Your task to perform on an android device: Go to wifi settings Image 0: 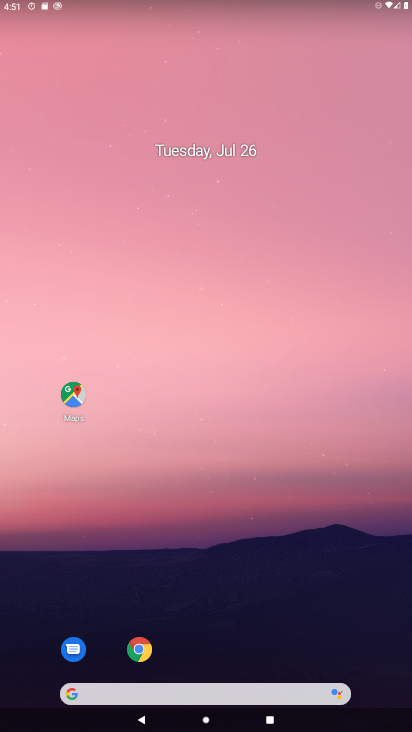
Step 0: drag from (369, 629) to (182, 6)
Your task to perform on an android device: Go to wifi settings Image 1: 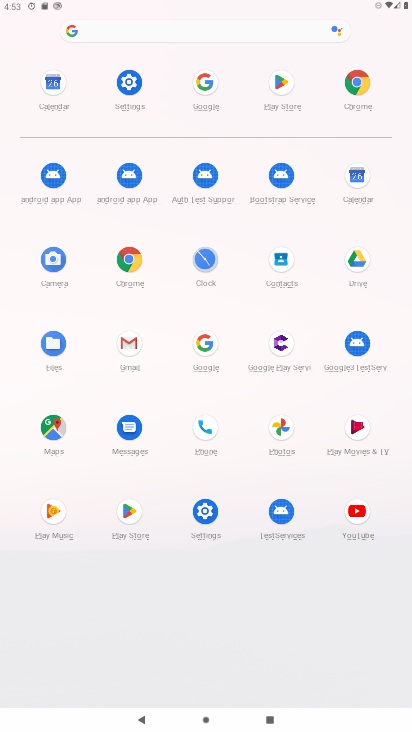
Step 1: click (204, 507)
Your task to perform on an android device: Go to wifi settings Image 2: 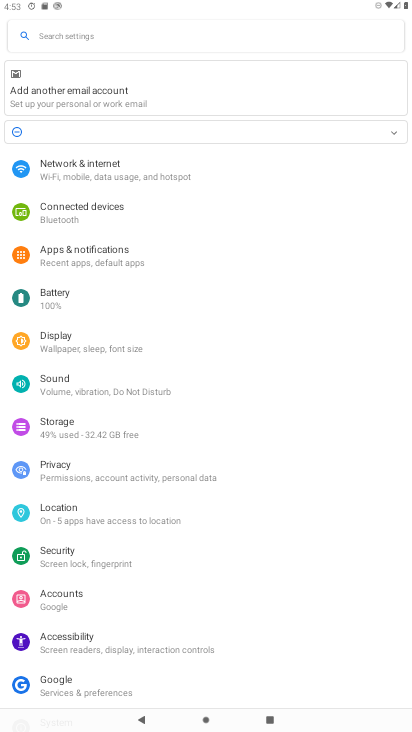
Step 2: click (82, 160)
Your task to perform on an android device: Go to wifi settings Image 3: 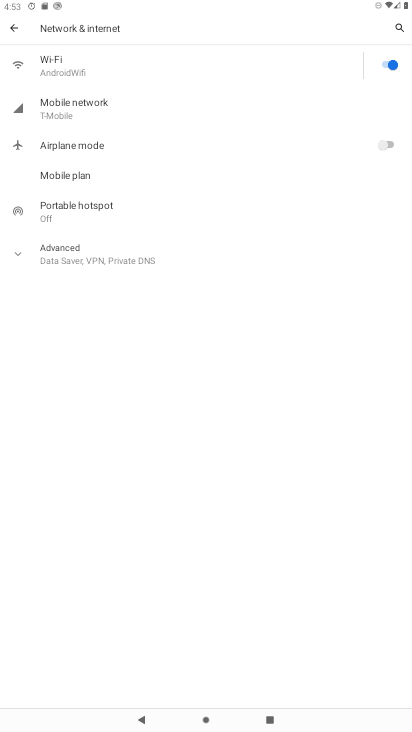
Step 3: click (73, 59)
Your task to perform on an android device: Go to wifi settings Image 4: 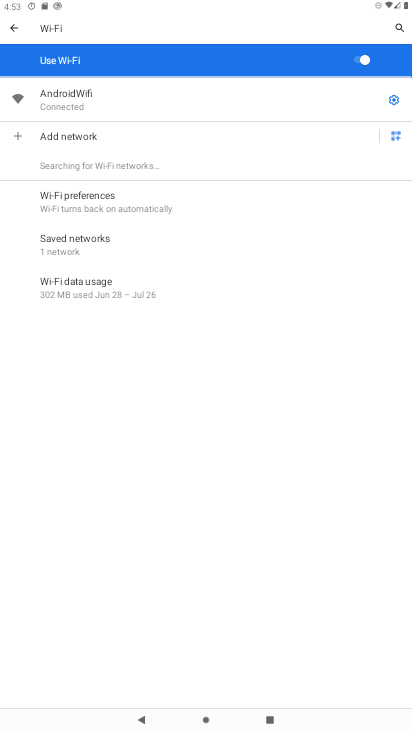
Step 4: task complete